Your task to perform on an android device: Go to Reddit.com Image 0: 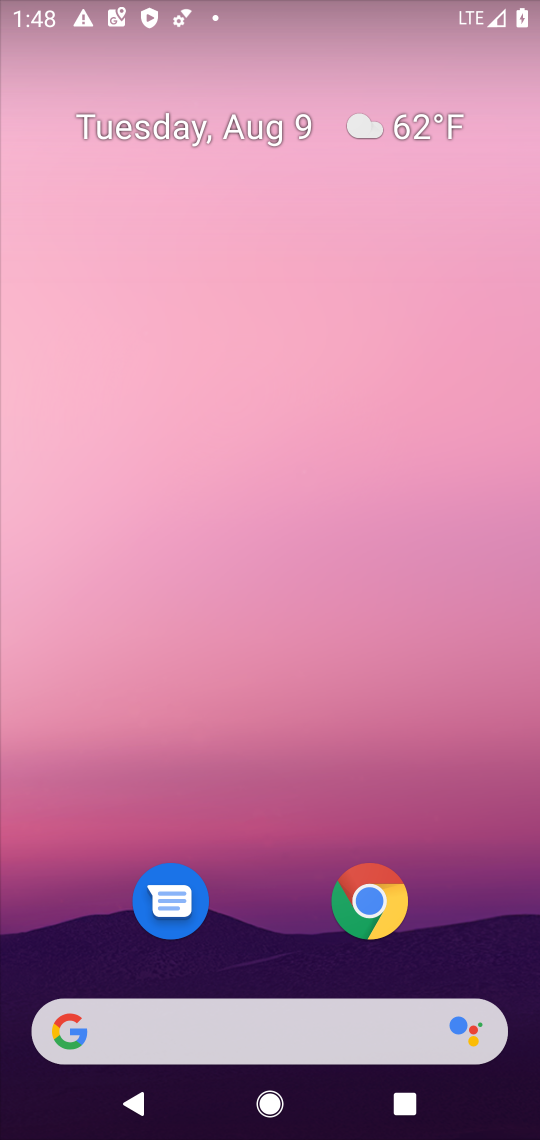
Step 0: click (373, 897)
Your task to perform on an android device: Go to Reddit.com Image 1: 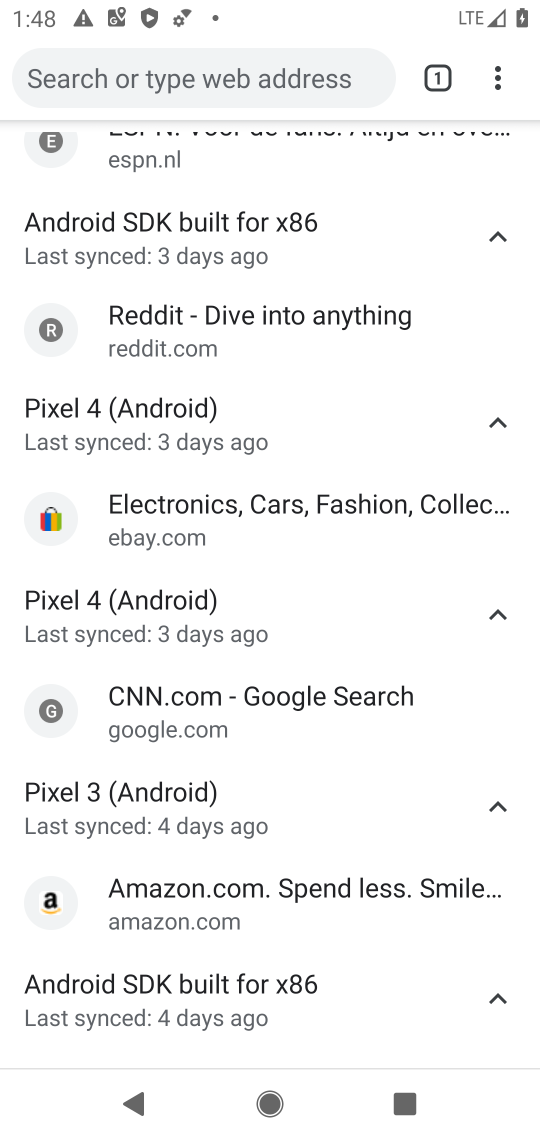
Step 1: click (237, 71)
Your task to perform on an android device: Go to Reddit.com Image 2: 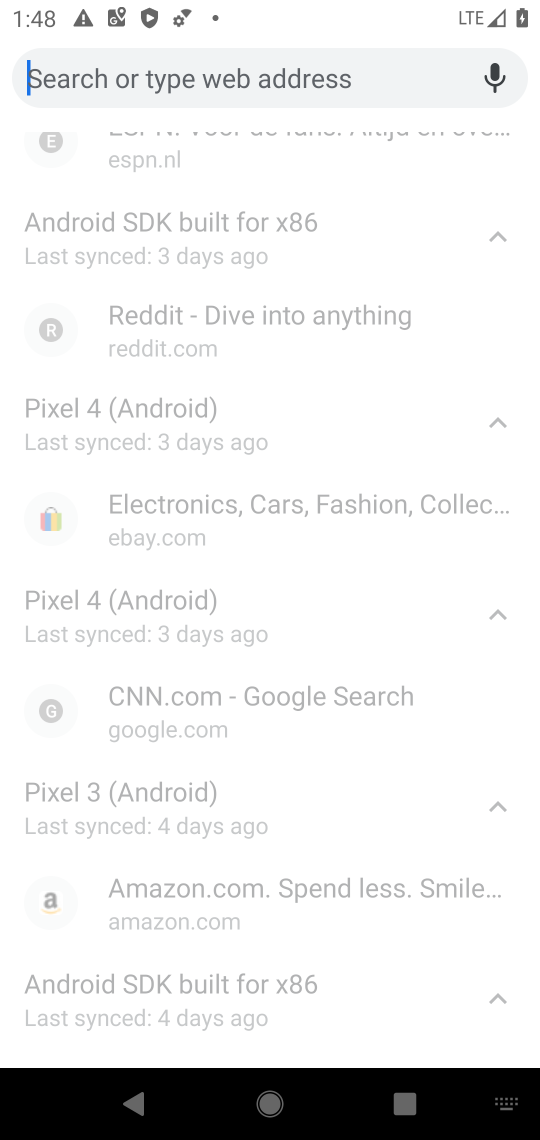
Step 2: type "reddit.com"
Your task to perform on an android device: Go to Reddit.com Image 3: 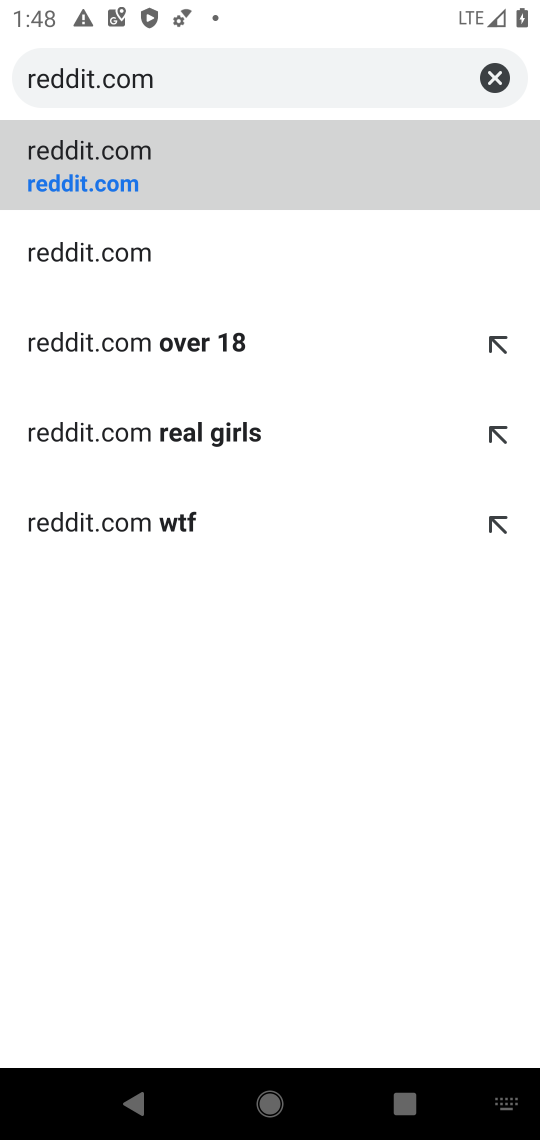
Step 3: click (93, 148)
Your task to perform on an android device: Go to Reddit.com Image 4: 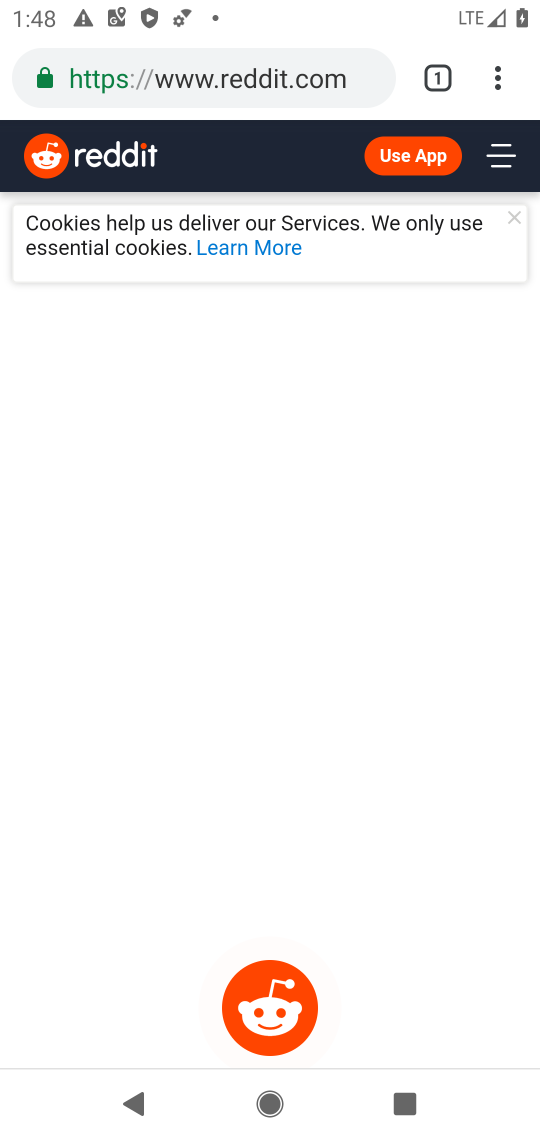
Step 4: task complete